Your task to perform on an android device: change the clock style Image 0: 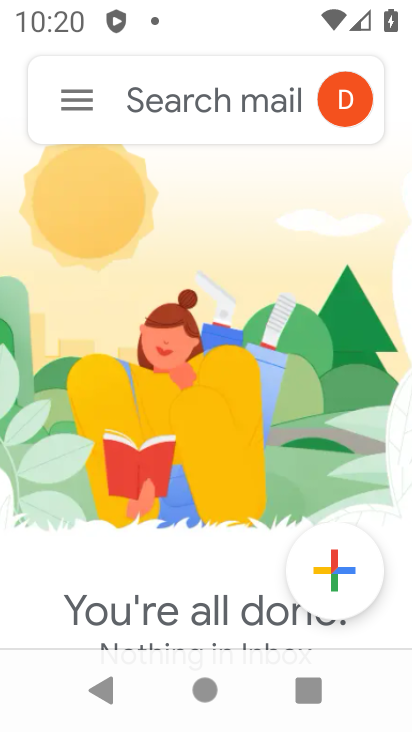
Step 0: press home button
Your task to perform on an android device: change the clock style Image 1: 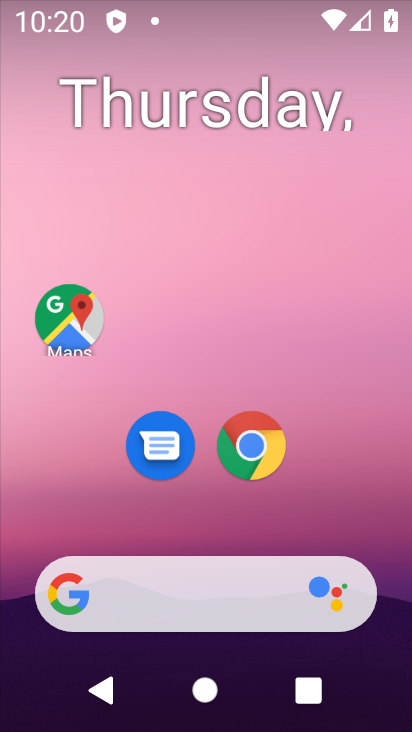
Step 1: drag from (233, 722) to (240, 141)
Your task to perform on an android device: change the clock style Image 2: 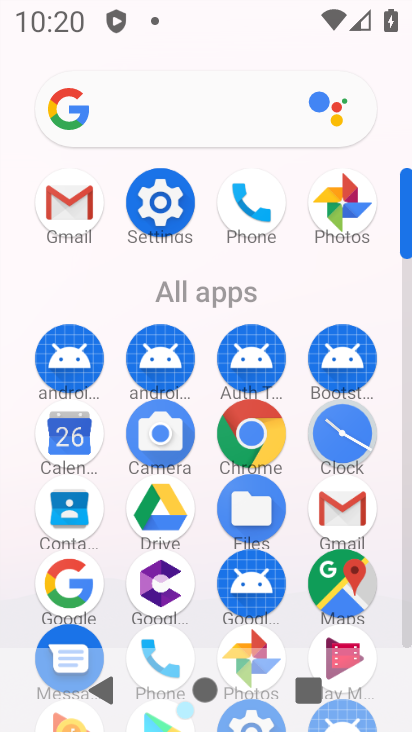
Step 2: click (329, 444)
Your task to perform on an android device: change the clock style Image 3: 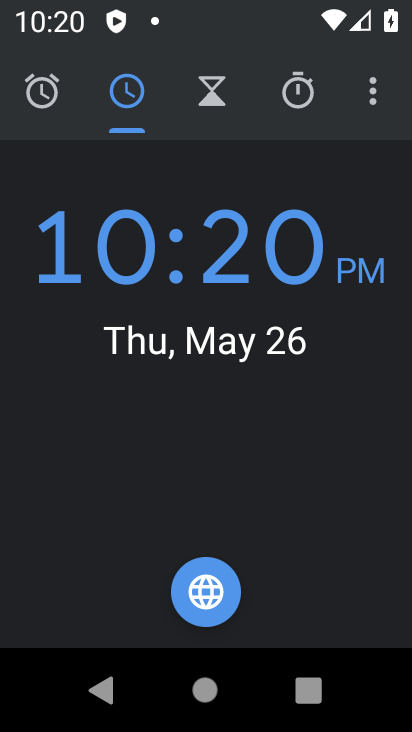
Step 3: click (374, 102)
Your task to perform on an android device: change the clock style Image 4: 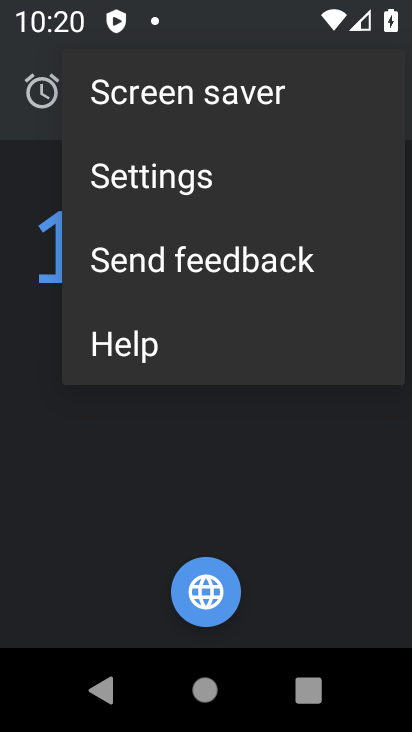
Step 4: click (177, 174)
Your task to perform on an android device: change the clock style Image 5: 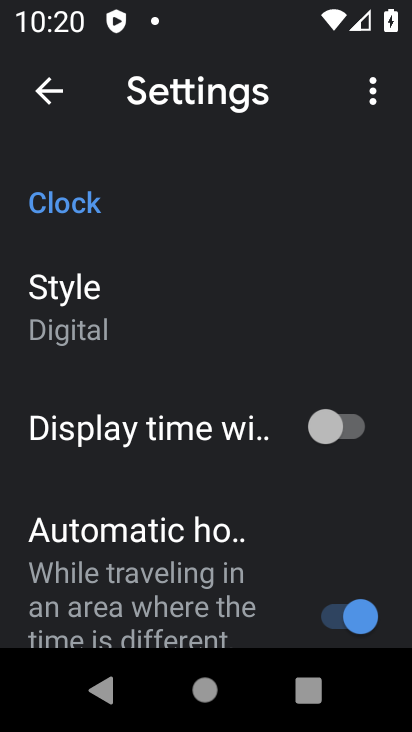
Step 5: click (85, 294)
Your task to perform on an android device: change the clock style Image 6: 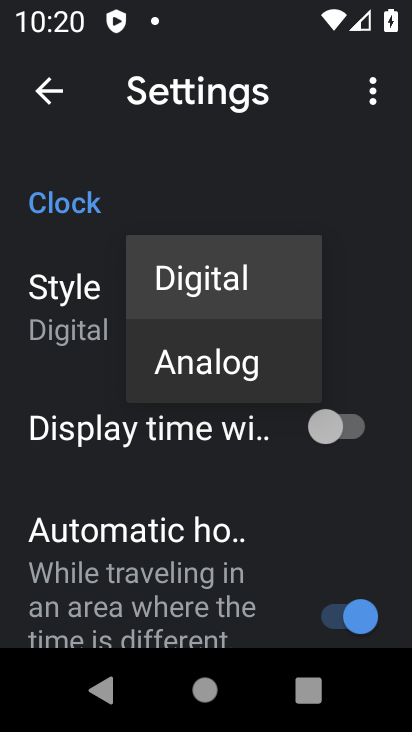
Step 6: click (189, 355)
Your task to perform on an android device: change the clock style Image 7: 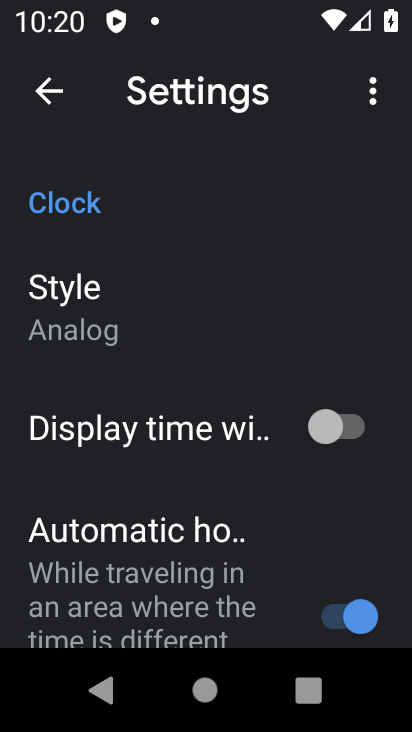
Step 7: task complete